Your task to perform on an android device: toggle translation in the chrome app Image 0: 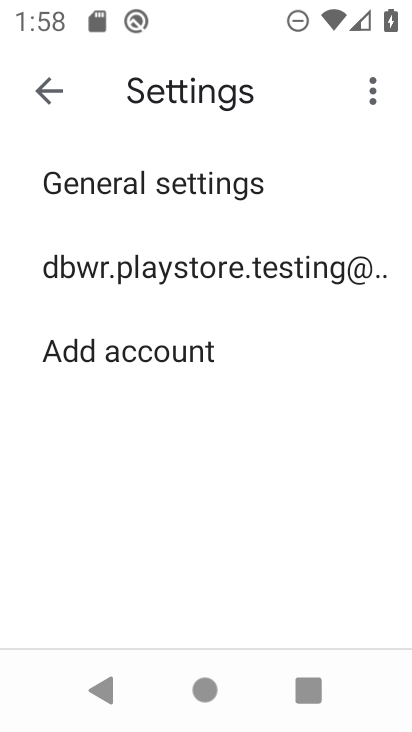
Step 0: press home button
Your task to perform on an android device: toggle translation in the chrome app Image 1: 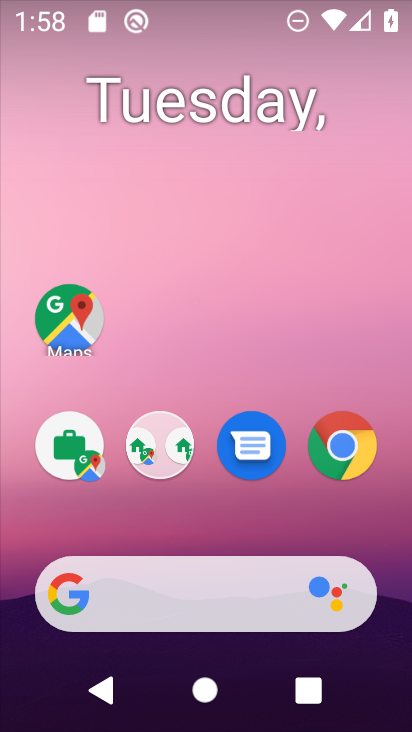
Step 1: click (365, 466)
Your task to perform on an android device: toggle translation in the chrome app Image 2: 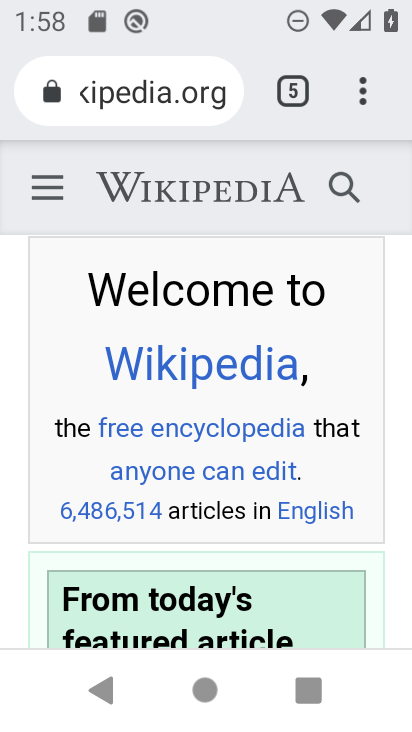
Step 2: click (367, 90)
Your task to perform on an android device: toggle translation in the chrome app Image 3: 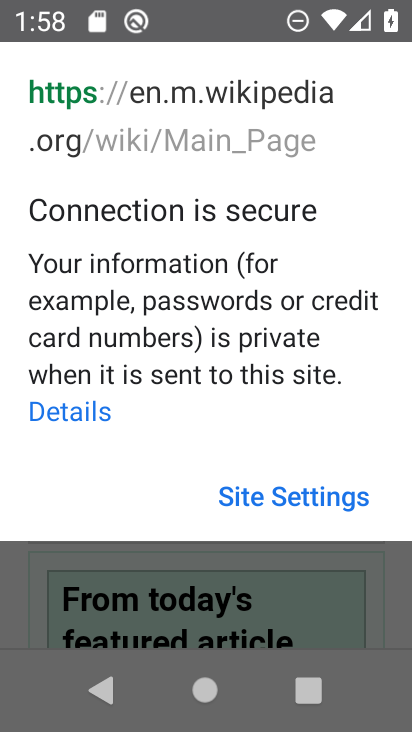
Step 3: task complete